Your task to perform on an android device: Go to settings Image 0: 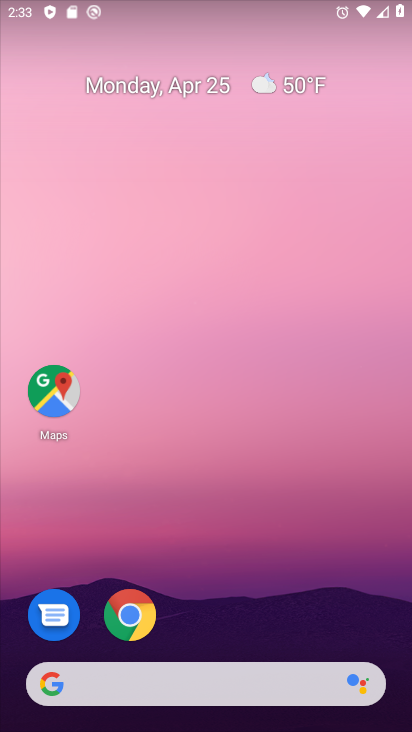
Step 0: drag from (221, 583) to (197, 6)
Your task to perform on an android device: Go to settings Image 1: 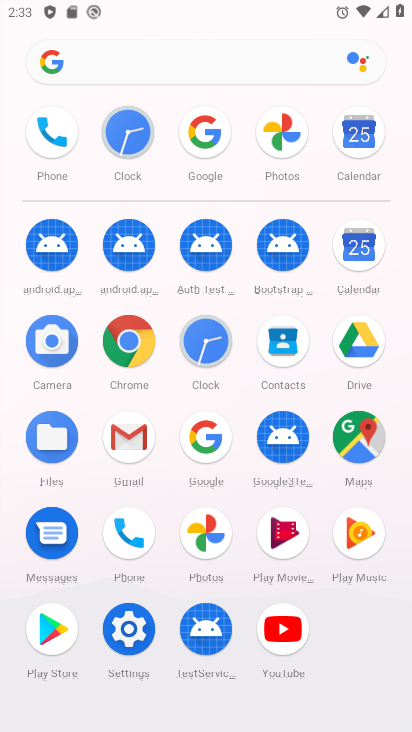
Step 1: click (130, 633)
Your task to perform on an android device: Go to settings Image 2: 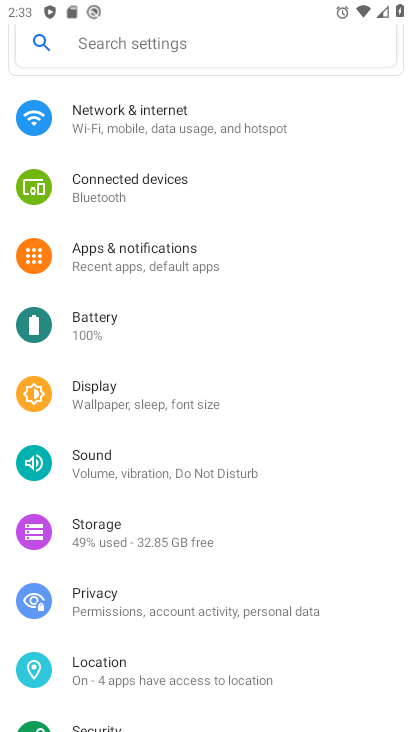
Step 2: task complete